Your task to perform on an android device: set the stopwatch Image 0: 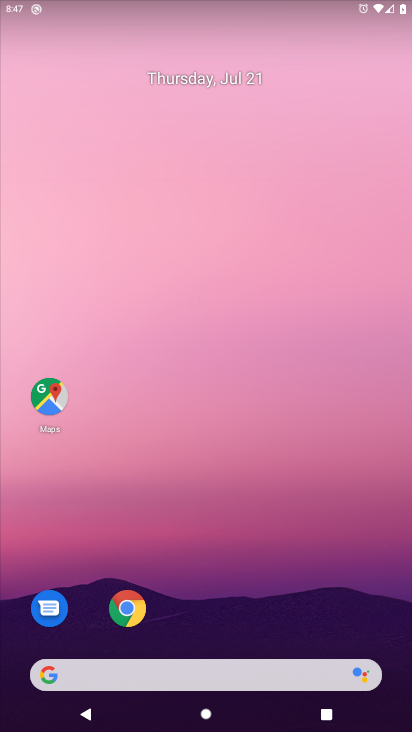
Step 0: drag from (34, 622) to (123, 177)
Your task to perform on an android device: set the stopwatch Image 1: 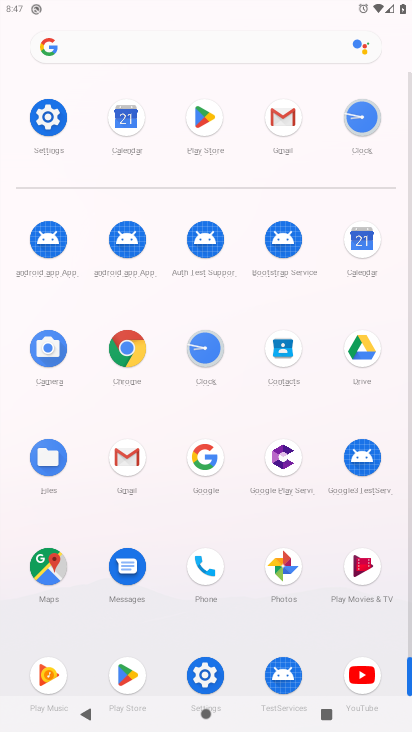
Step 1: click (203, 354)
Your task to perform on an android device: set the stopwatch Image 2: 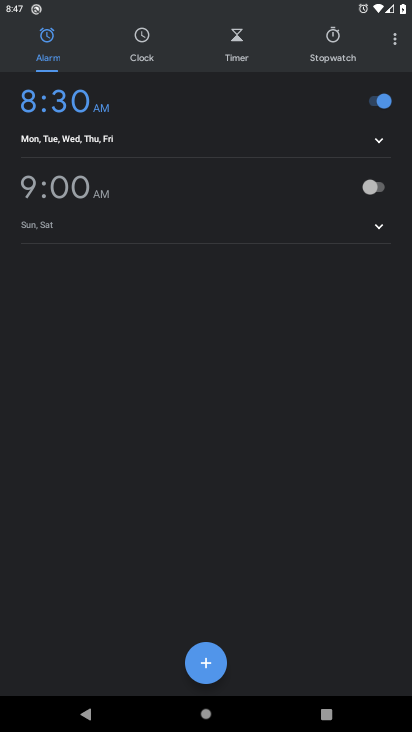
Step 2: click (330, 51)
Your task to perform on an android device: set the stopwatch Image 3: 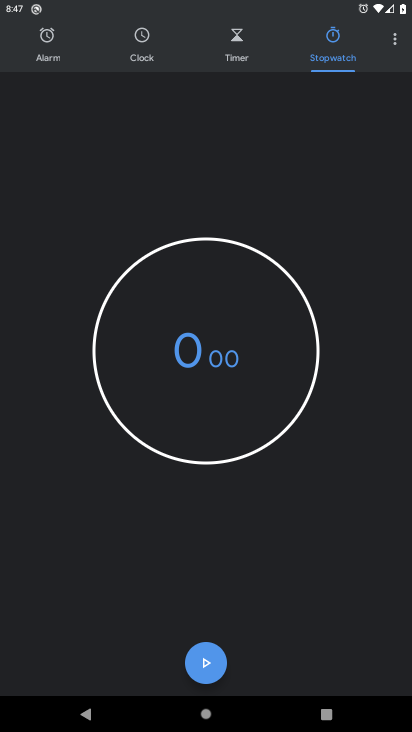
Step 3: click (188, 360)
Your task to perform on an android device: set the stopwatch Image 4: 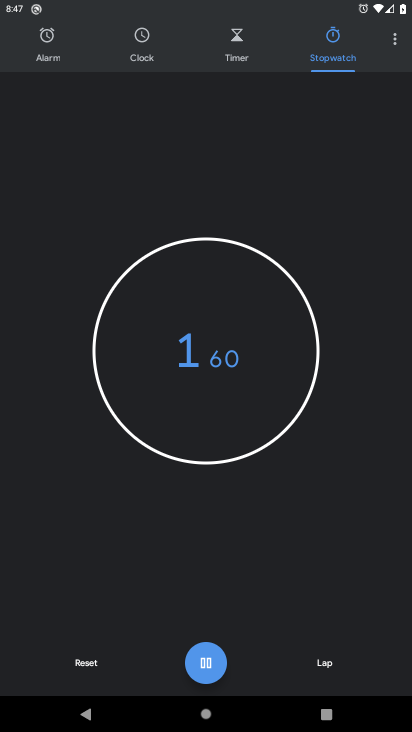
Step 4: click (206, 669)
Your task to perform on an android device: set the stopwatch Image 5: 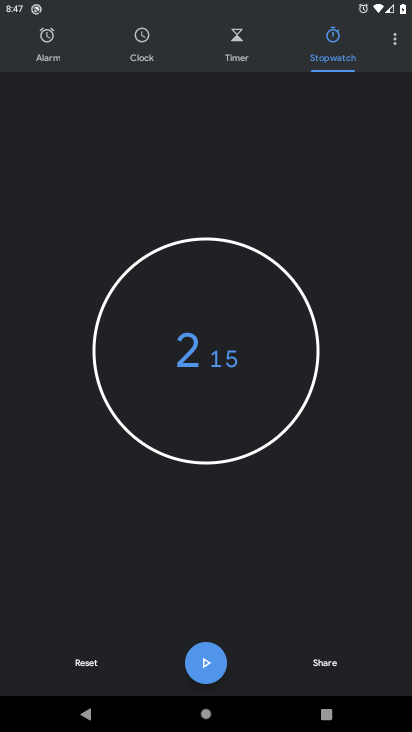
Step 5: task complete